Your task to perform on an android device: turn off improve location accuracy Image 0: 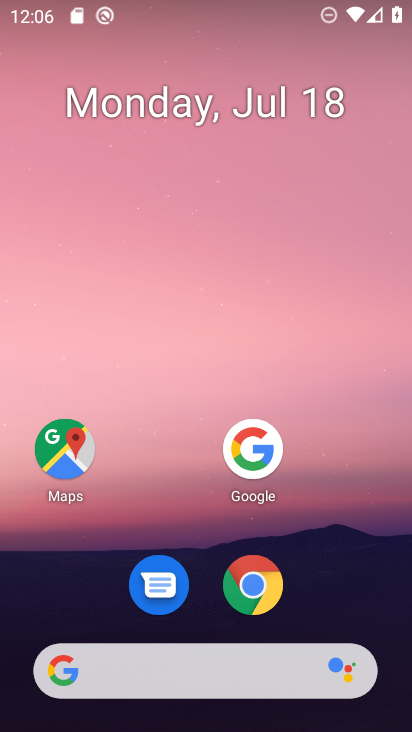
Step 0: press home button
Your task to perform on an android device: turn off improve location accuracy Image 1: 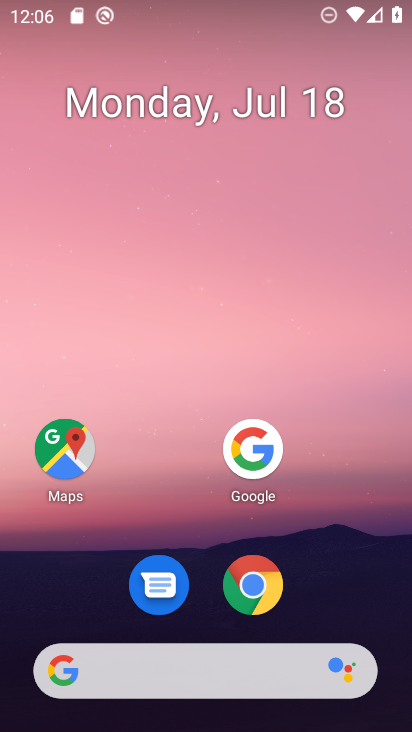
Step 1: drag from (193, 667) to (306, 155)
Your task to perform on an android device: turn off improve location accuracy Image 2: 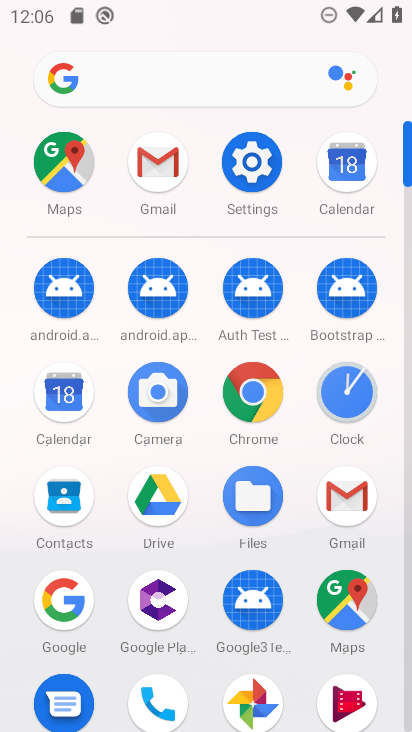
Step 2: click (263, 154)
Your task to perform on an android device: turn off improve location accuracy Image 3: 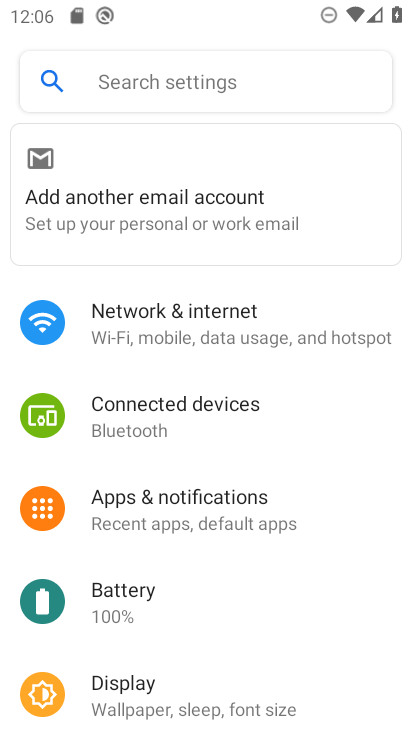
Step 3: drag from (208, 562) to (358, 186)
Your task to perform on an android device: turn off improve location accuracy Image 4: 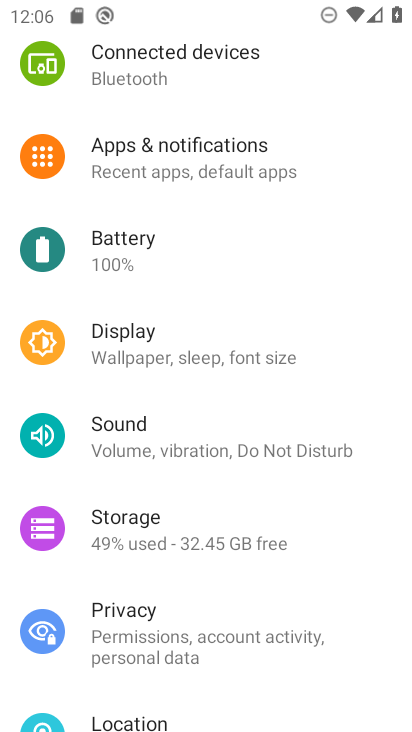
Step 4: drag from (183, 690) to (340, 288)
Your task to perform on an android device: turn off improve location accuracy Image 5: 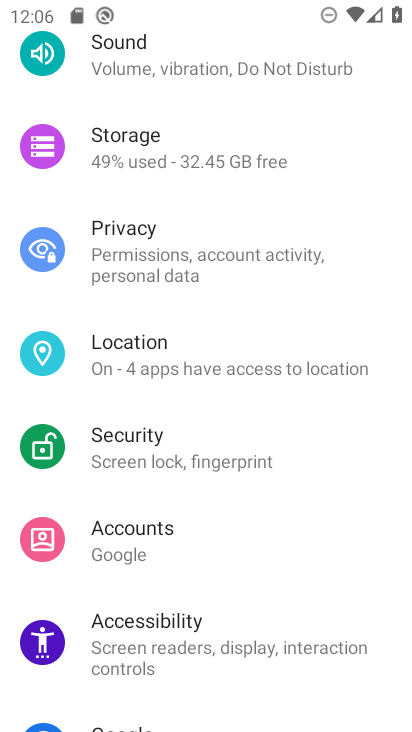
Step 5: click (167, 356)
Your task to perform on an android device: turn off improve location accuracy Image 6: 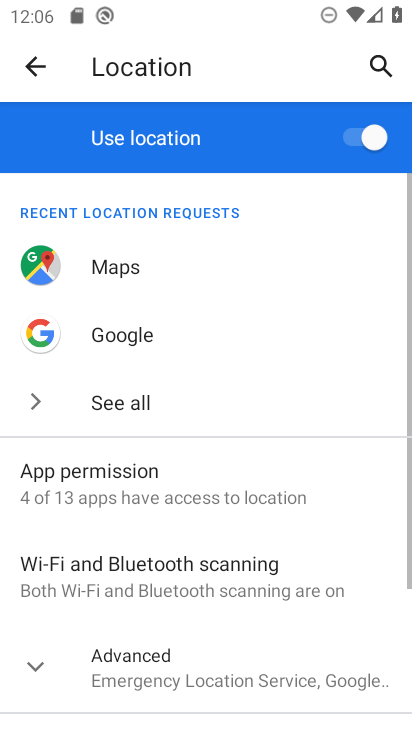
Step 6: drag from (181, 623) to (325, 291)
Your task to perform on an android device: turn off improve location accuracy Image 7: 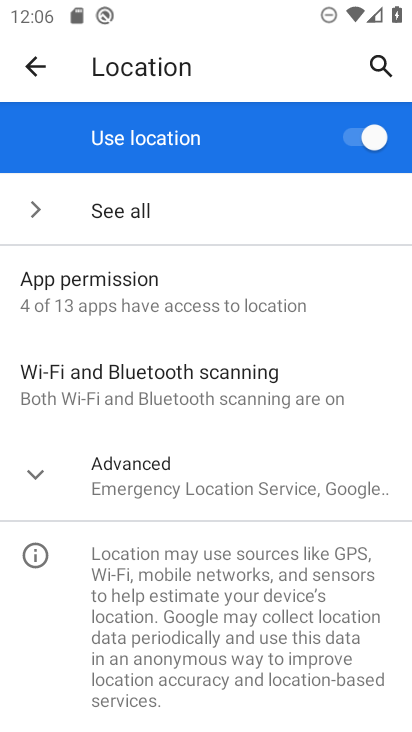
Step 7: click (176, 489)
Your task to perform on an android device: turn off improve location accuracy Image 8: 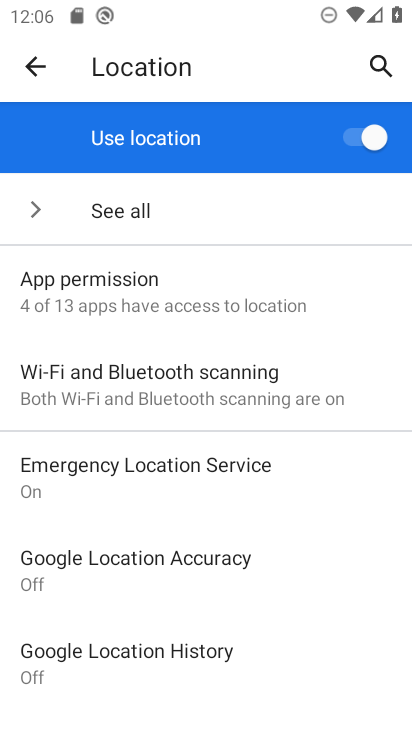
Step 8: click (185, 567)
Your task to perform on an android device: turn off improve location accuracy Image 9: 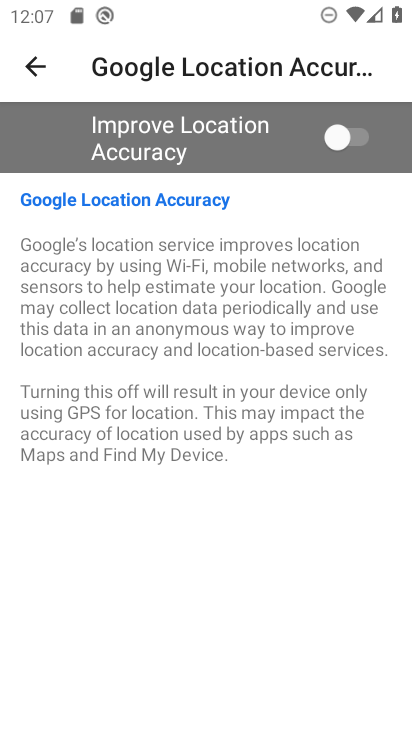
Step 9: task complete